Your task to perform on an android device: star an email in the gmail app Image 0: 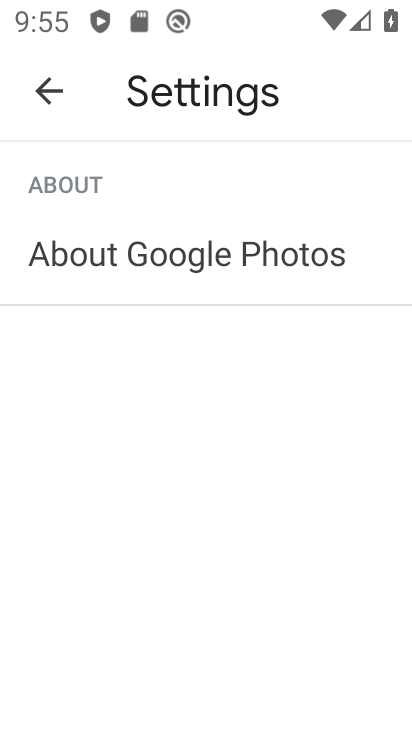
Step 0: press home button
Your task to perform on an android device: star an email in the gmail app Image 1: 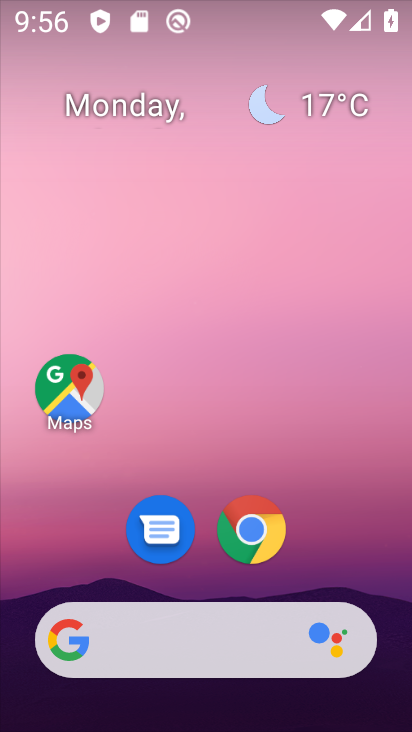
Step 1: drag from (197, 507) to (267, 12)
Your task to perform on an android device: star an email in the gmail app Image 2: 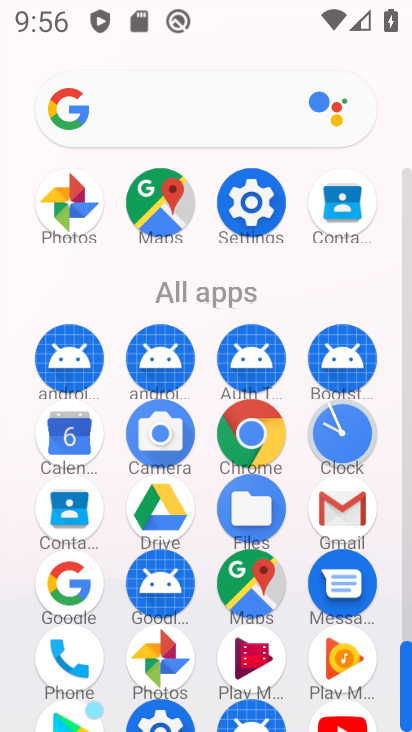
Step 2: click (352, 509)
Your task to perform on an android device: star an email in the gmail app Image 3: 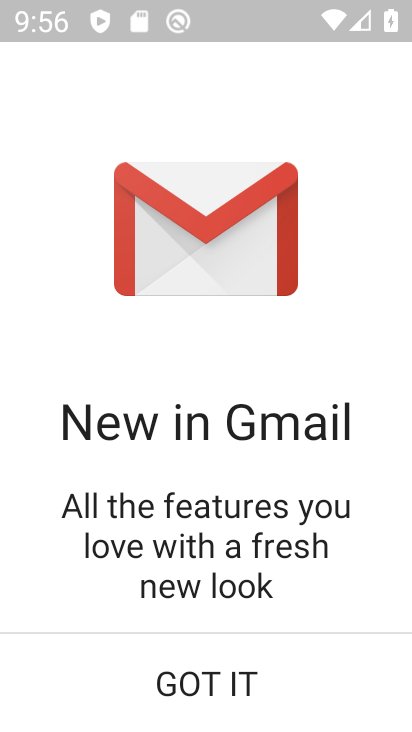
Step 3: click (262, 702)
Your task to perform on an android device: star an email in the gmail app Image 4: 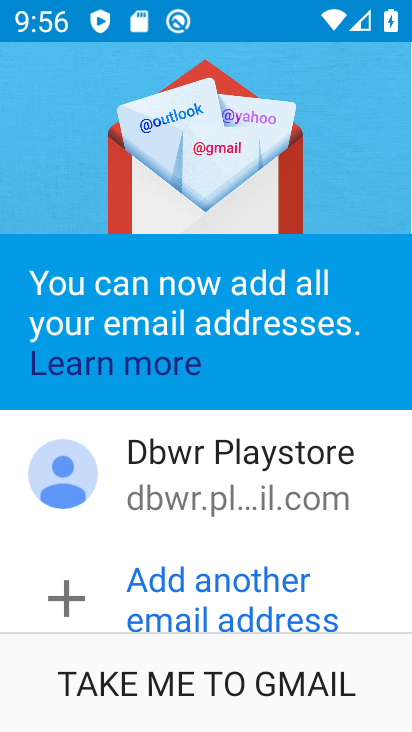
Step 4: click (270, 692)
Your task to perform on an android device: star an email in the gmail app Image 5: 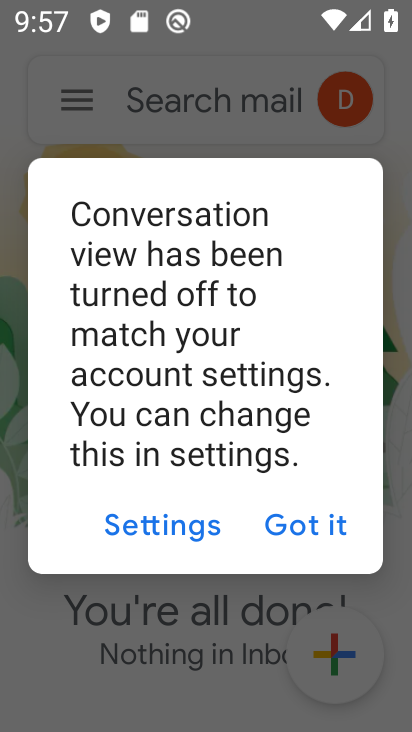
Step 5: click (296, 536)
Your task to perform on an android device: star an email in the gmail app Image 6: 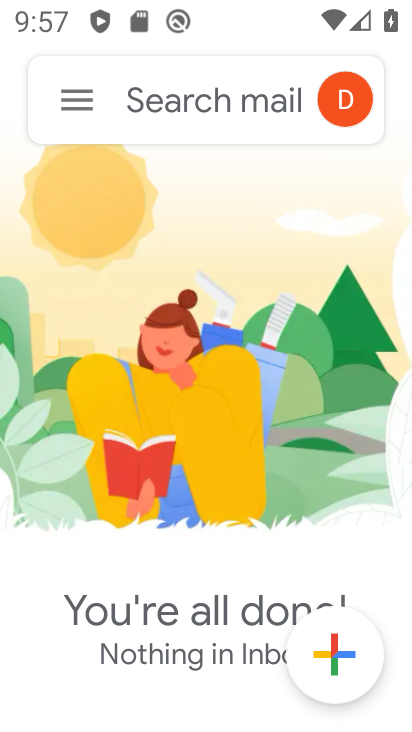
Step 6: click (78, 100)
Your task to perform on an android device: star an email in the gmail app Image 7: 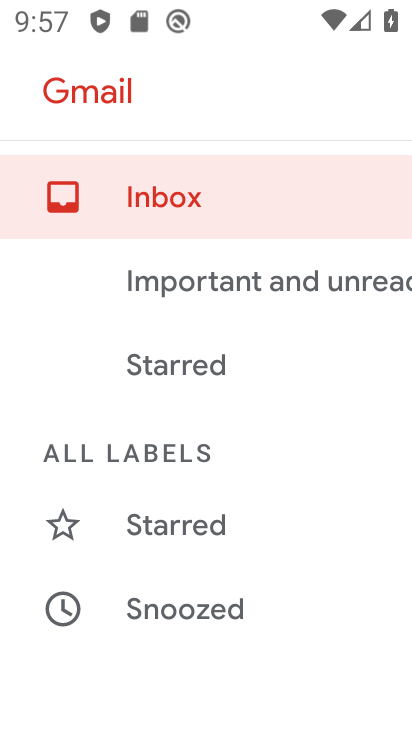
Step 7: drag from (203, 607) to (212, 112)
Your task to perform on an android device: star an email in the gmail app Image 8: 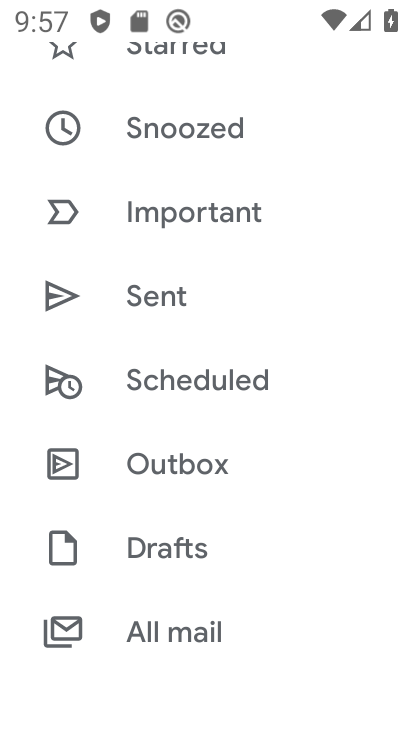
Step 8: click (153, 641)
Your task to perform on an android device: star an email in the gmail app Image 9: 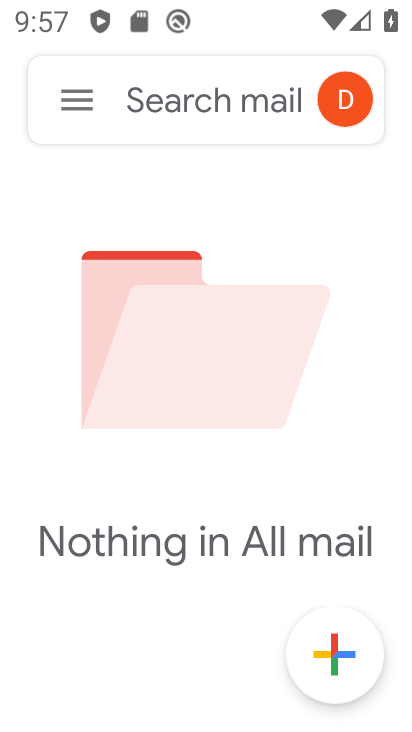
Step 9: task complete